Your task to perform on an android device: Go to ESPN.com Image 0: 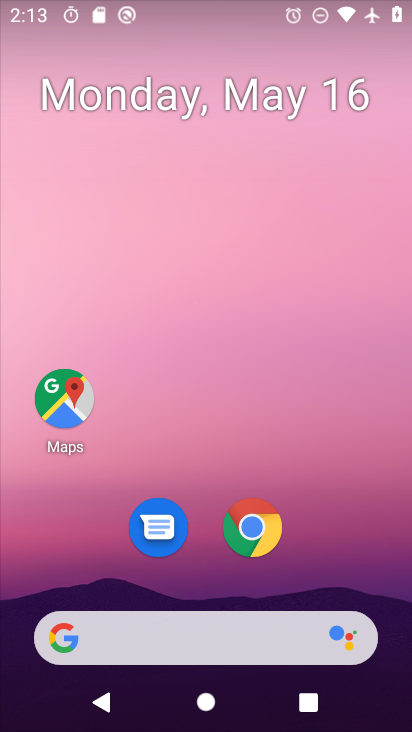
Step 0: press home button
Your task to perform on an android device: Go to ESPN.com Image 1: 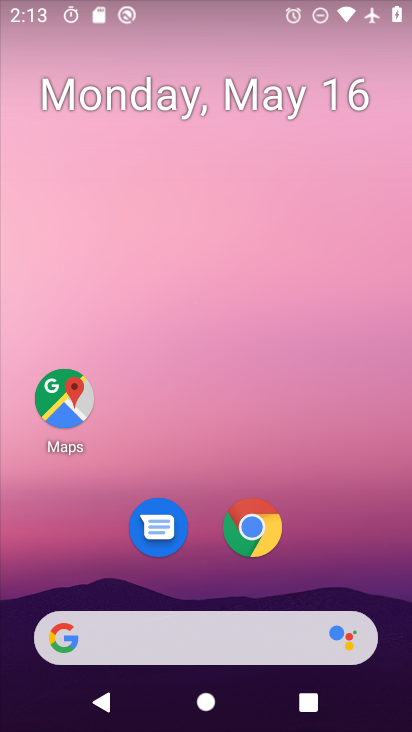
Step 1: click (254, 535)
Your task to perform on an android device: Go to ESPN.com Image 2: 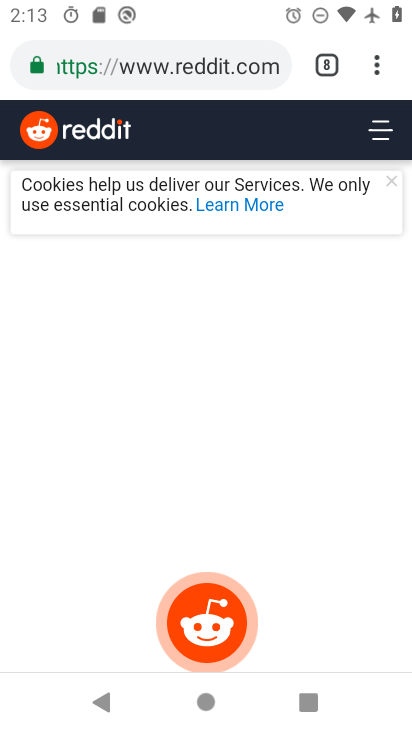
Step 2: drag from (376, 72) to (217, 126)
Your task to perform on an android device: Go to ESPN.com Image 3: 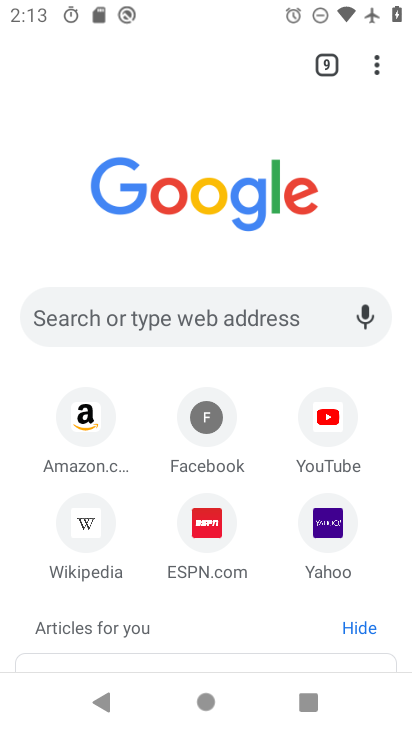
Step 3: click (210, 531)
Your task to perform on an android device: Go to ESPN.com Image 4: 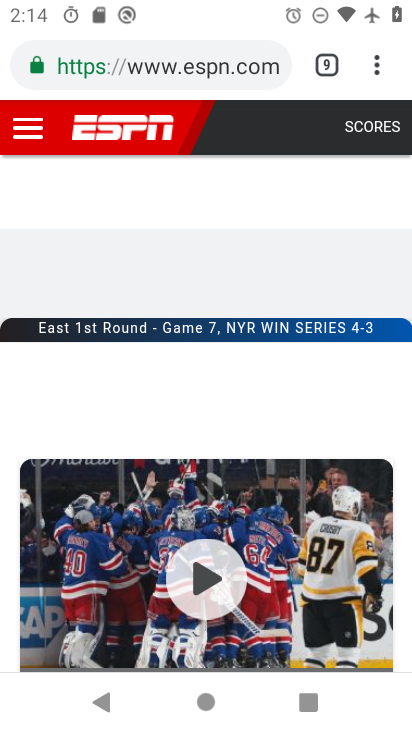
Step 4: task complete